Your task to perform on an android device: toggle airplane mode Image 0: 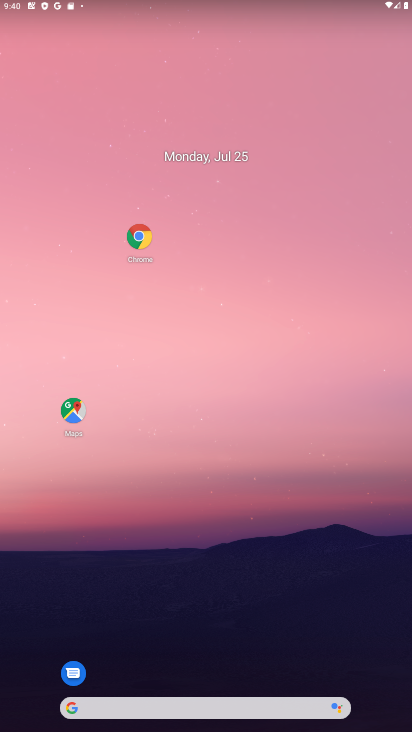
Step 0: drag from (249, 684) to (63, 158)
Your task to perform on an android device: toggle airplane mode Image 1: 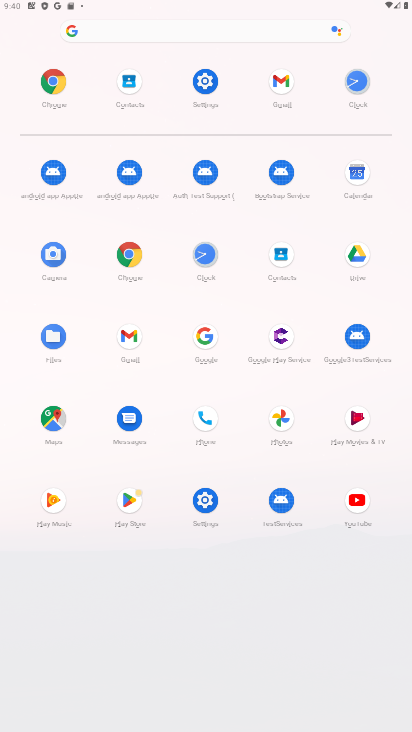
Step 1: click (191, 98)
Your task to perform on an android device: toggle airplane mode Image 2: 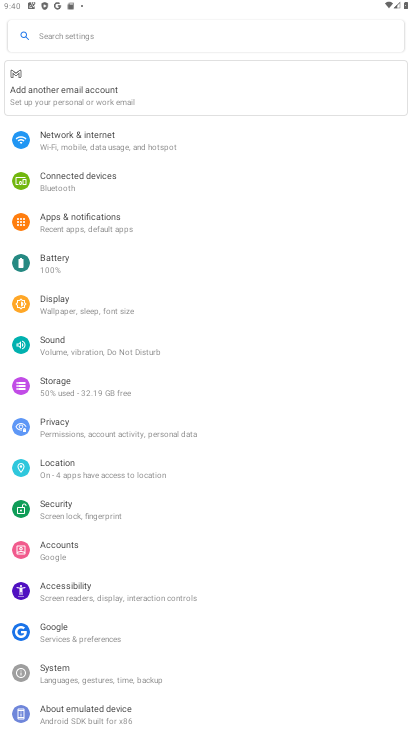
Step 2: click (99, 132)
Your task to perform on an android device: toggle airplane mode Image 3: 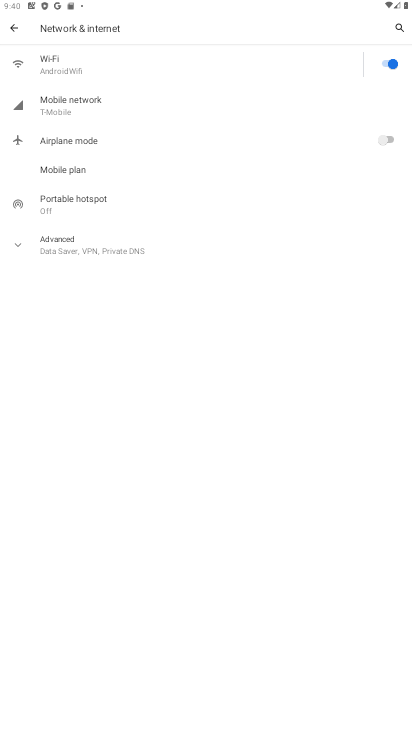
Step 3: click (159, 139)
Your task to perform on an android device: toggle airplane mode Image 4: 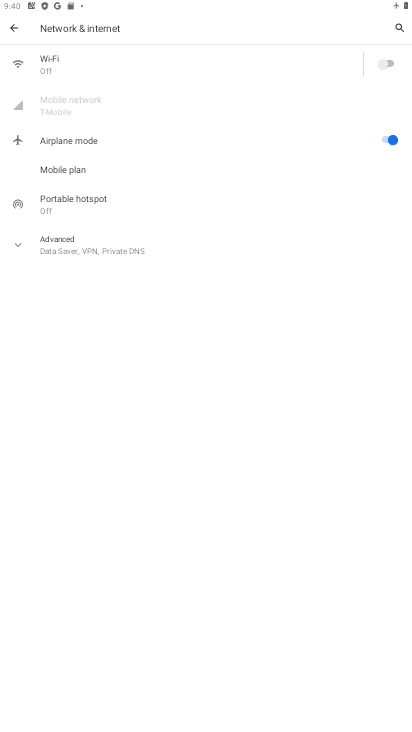
Step 4: task complete